Your task to perform on an android device: Go to location settings Image 0: 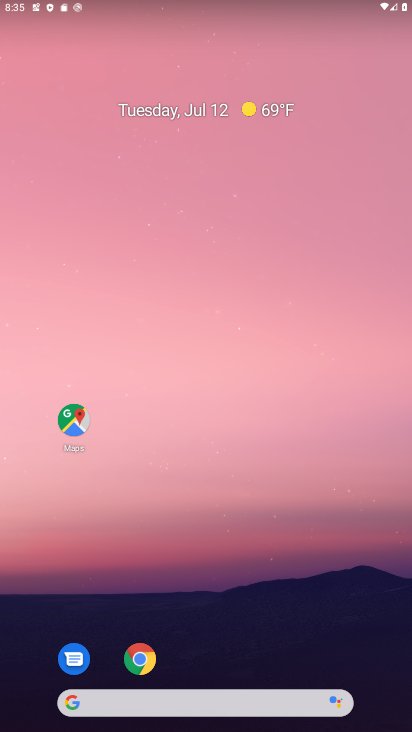
Step 0: drag from (236, 638) to (234, 592)
Your task to perform on an android device: Go to location settings Image 1: 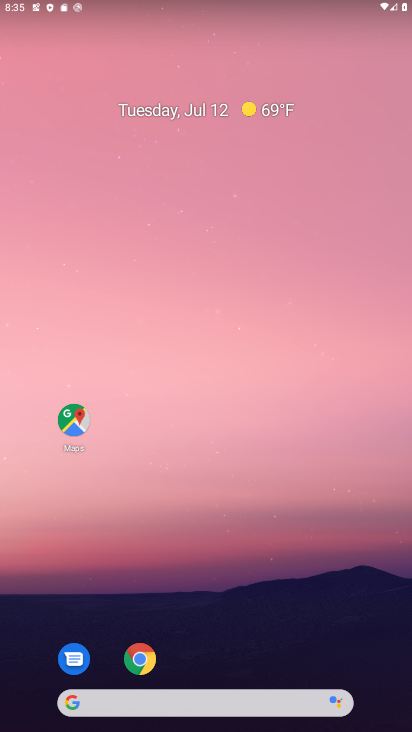
Step 1: drag from (225, 338) to (225, 270)
Your task to perform on an android device: Go to location settings Image 2: 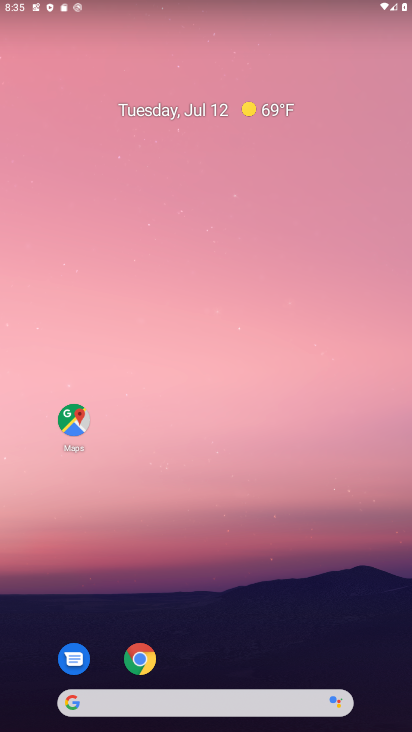
Step 2: drag from (284, 715) to (268, 37)
Your task to perform on an android device: Go to location settings Image 3: 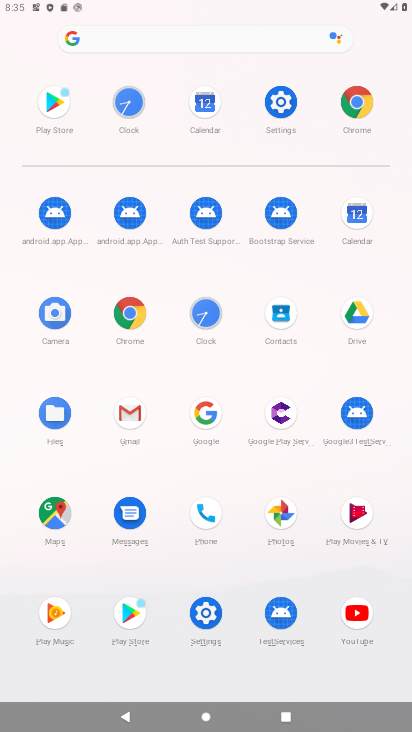
Step 3: click (277, 105)
Your task to perform on an android device: Go to location settings Image 4: 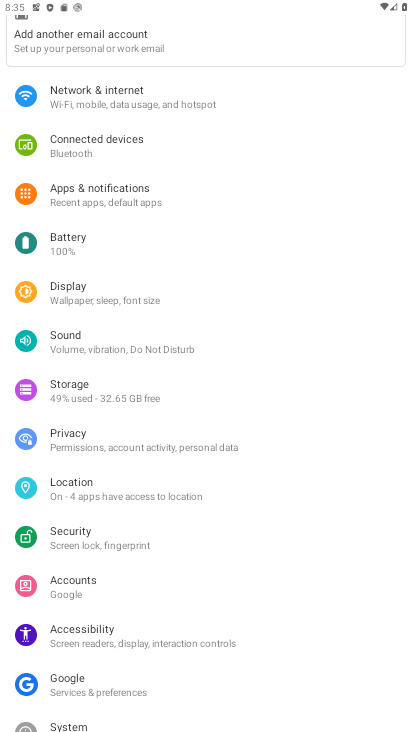
Step 4: click (78, 489)
Your task to perform on an android device: Go to location settings Image 5: 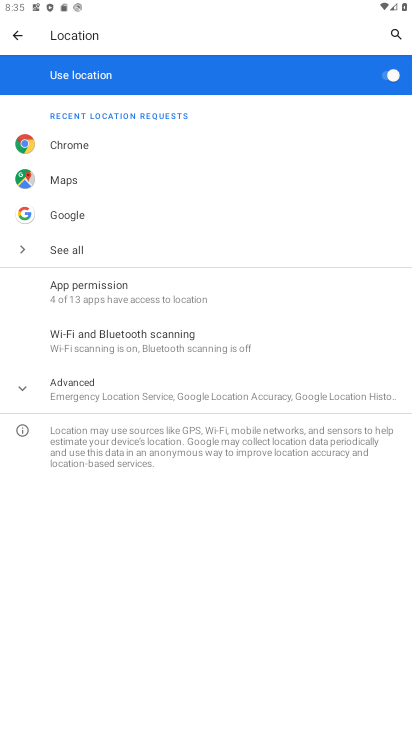
Step 5: task complete